Your task to perform on an android device: check battery use Image 0: 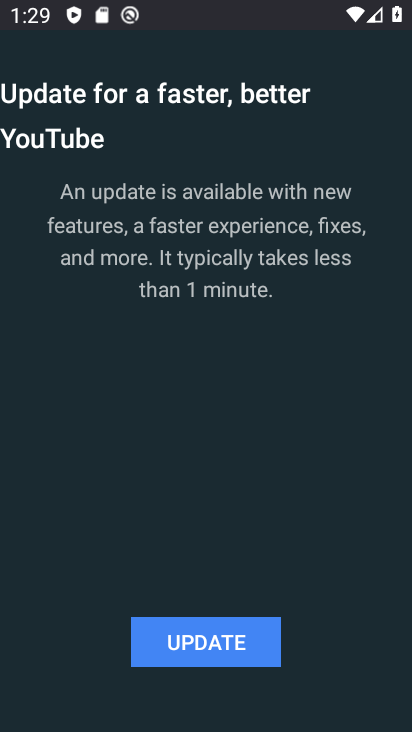
Step 0: press back button
Your task to perform on an android device: check battery use Image 1: 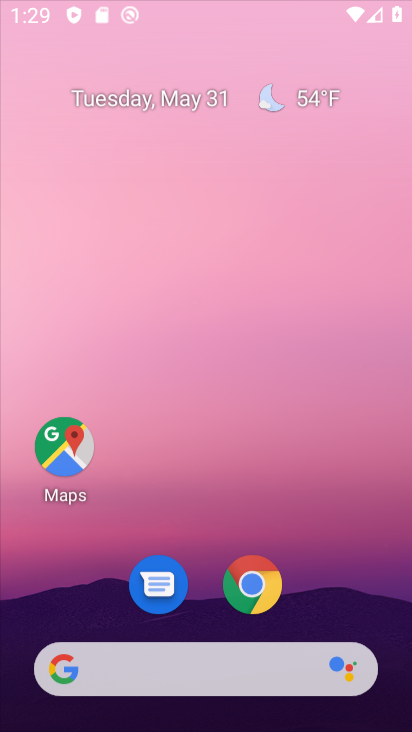
Step 1: press home button
Your task to perform on an android device: check battery use Image 2: 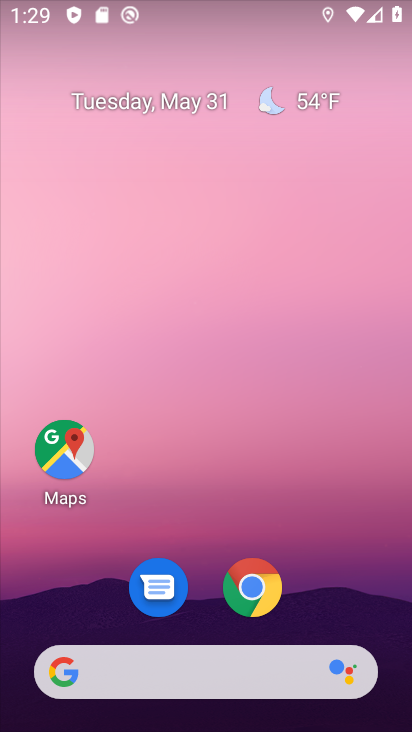
Step 2: drag from (210, 618) to (336, 122)
Your task to perform on an android device: check battery use Image 3: 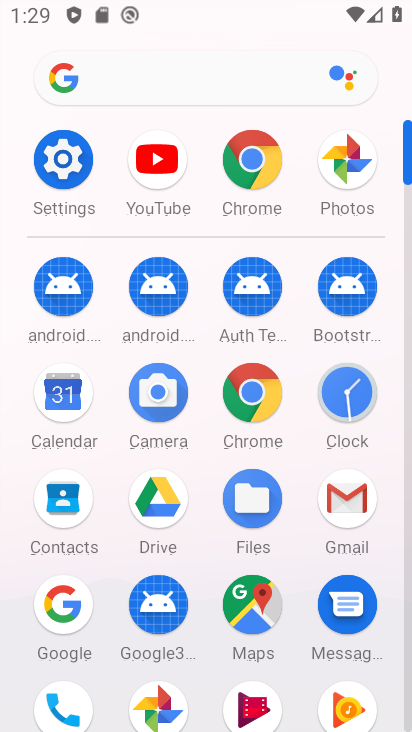
Step 3: click (56, 151)
Your task to perform on an android device: check battery use Image 4: 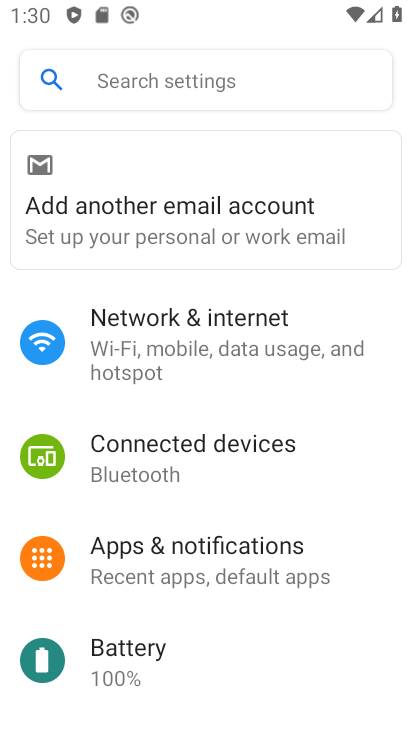
Step 4: click (165, 652)
Your task to perform on an android device: check battery use Image 5: 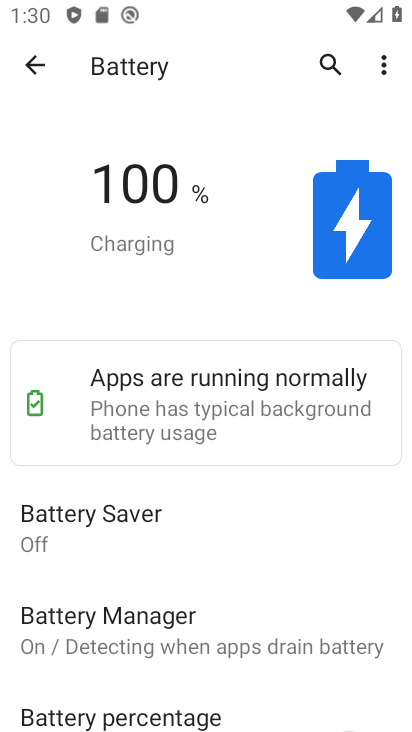
Step 5: drag from (389, 71) to (252, 62)
Your task to perform on an android device: check battery use Image 6: 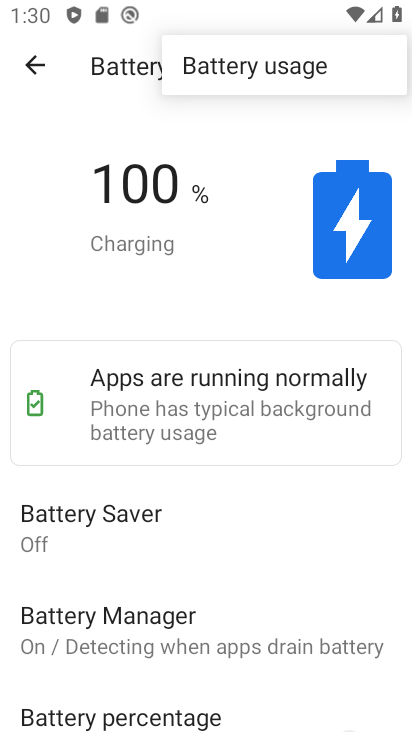
Step 6: click (252, 62)
Your task to perform on an android device: check battery use Image 7: 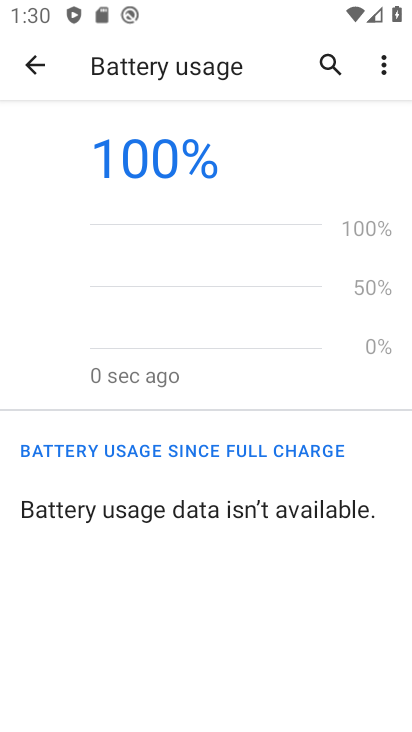
Step 7: task complete